Your task to perform on an android device: create a new album in the google photos Image 0: 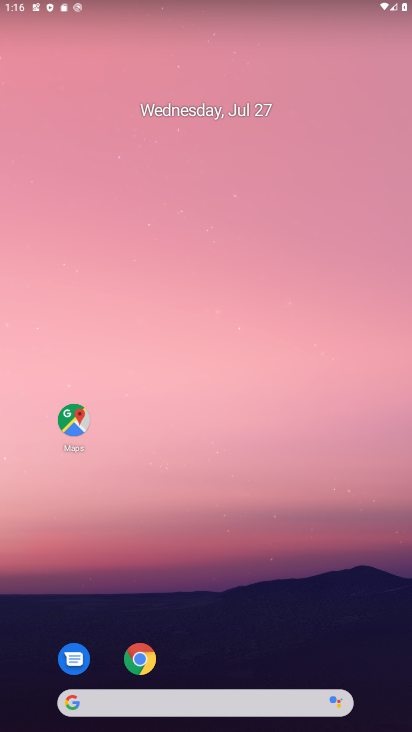
Step 0: drag from (260, 621) to (263, 150)
Your task to perform on an android device: create a new album in the google photos Image 1: 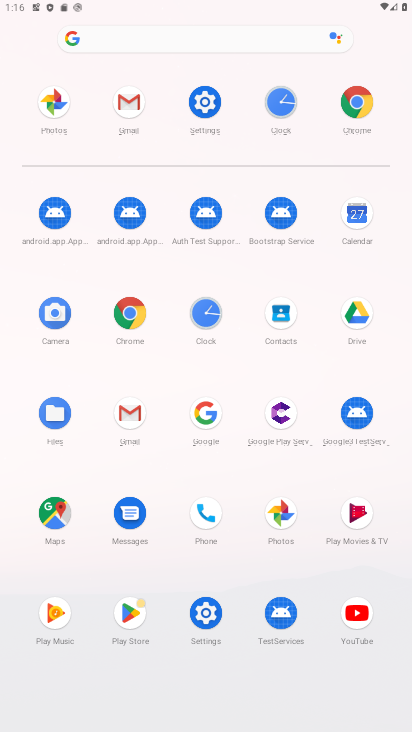
Step 1: click (284, 509)
Your task to perform on an android device: create a new album in the google photos Image 2: 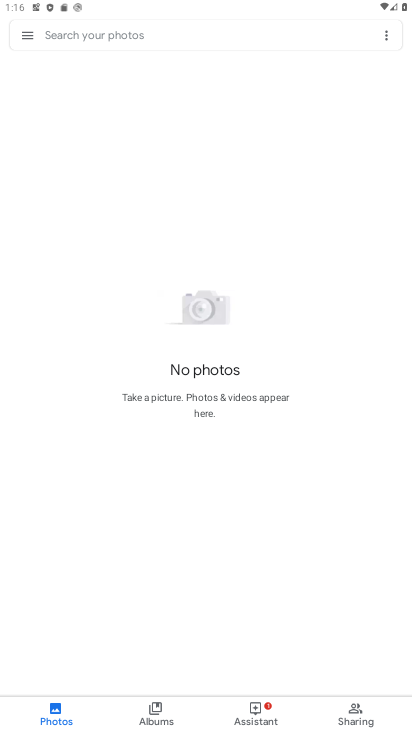
Step 2: click (166, 704)
Your task to perform on an android device: create a new album in the google photos Image 3: 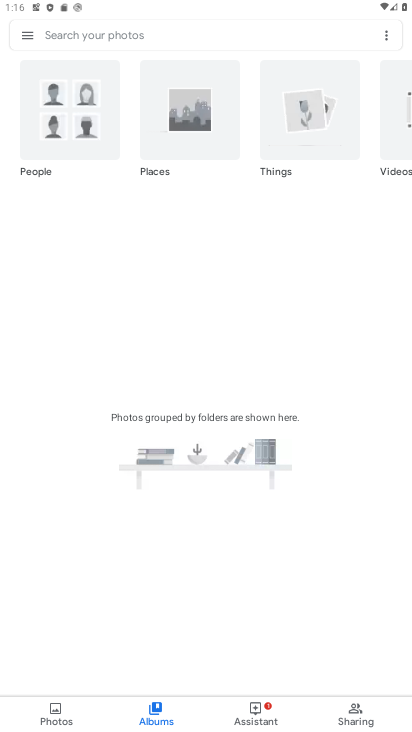
Step 3: click (386, 33)
Your task to perform on an android device: create a new album in the google photos Image 4: 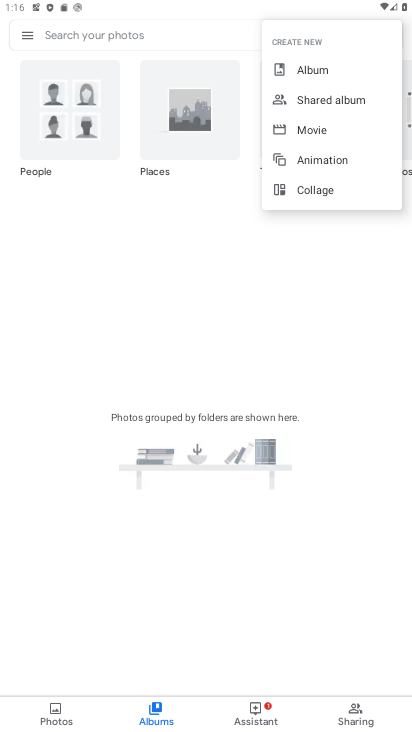
Step 4: click (338, 65)
Your task to perform on an android device: create a new album in the google photos Image 5: 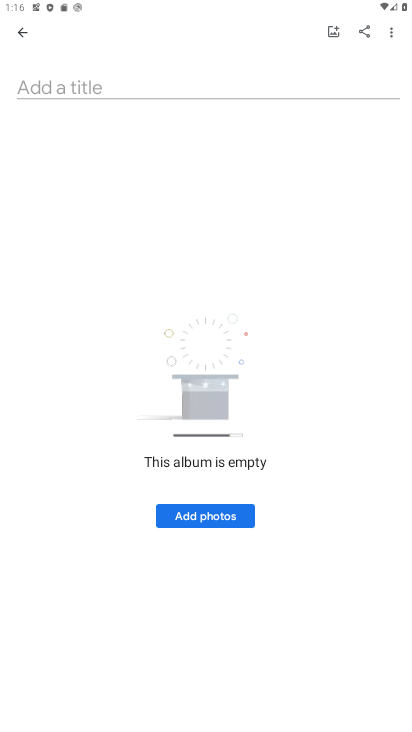
Step 5: click (240, 83)
Your task to perform on an android device: create a new album in the google photos Image 6: 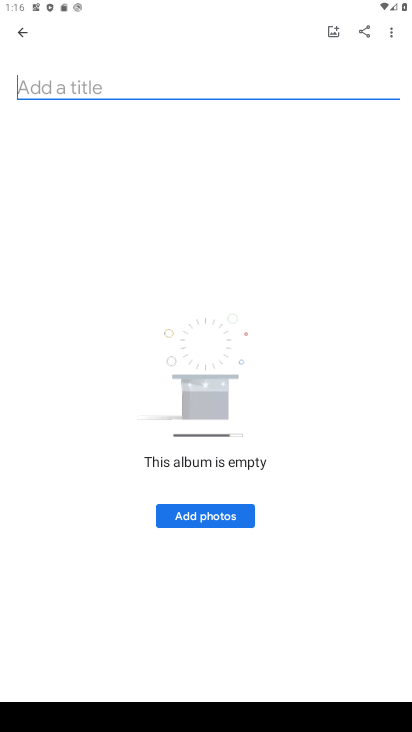
Step 6: type "hopooo"
Your task to perform on an android device: create a new album in the google photos Image 7: 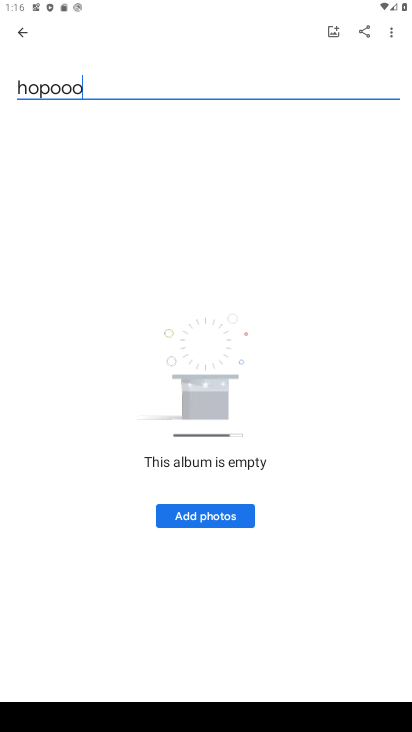
Step 7: click (210, 517)
Your task to perform on an android device: create a new album in the google photos Image 8: 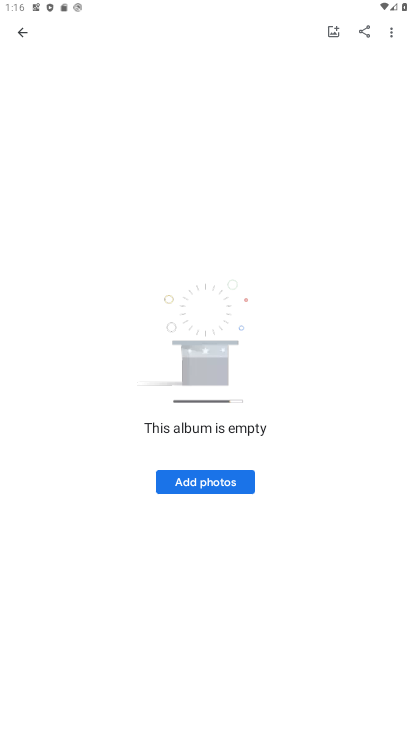
Step 8: click (187, 475)
Your task to perform on an android device: create a new album in the google photos Image 9: 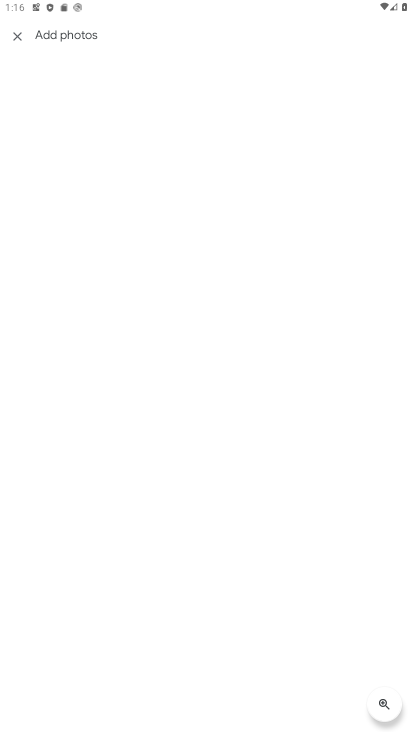
Step 9: click (17, 35)
Your task to perform on an android device: create a new album in the google photos Image 10: 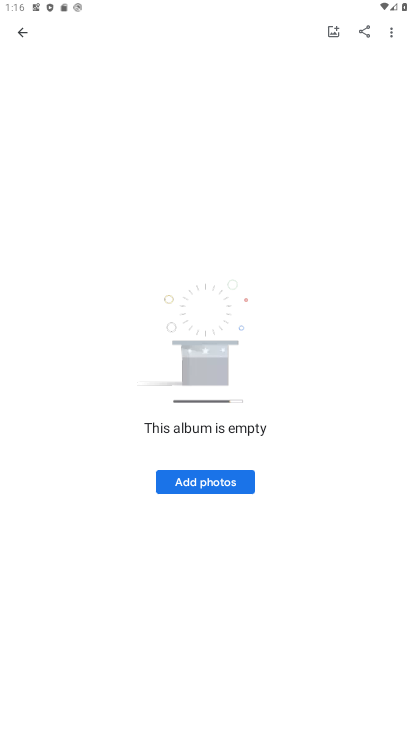
Step 10: click (392, 32)
Your task to perform on an android device: create a new album in the google photos Image 11: 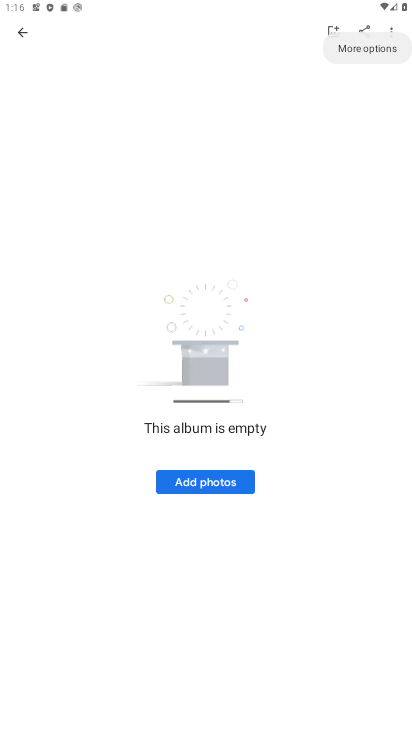
Step 11: click (396, 23)
Your task to perform on an android device: create a new album in the google photos Image 12: 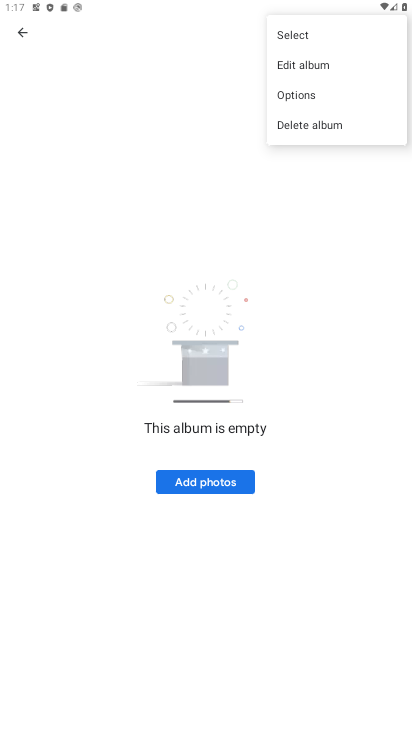
Step 12: task complete